Your task to perform on an android device: Open ESPN.com Image 0: 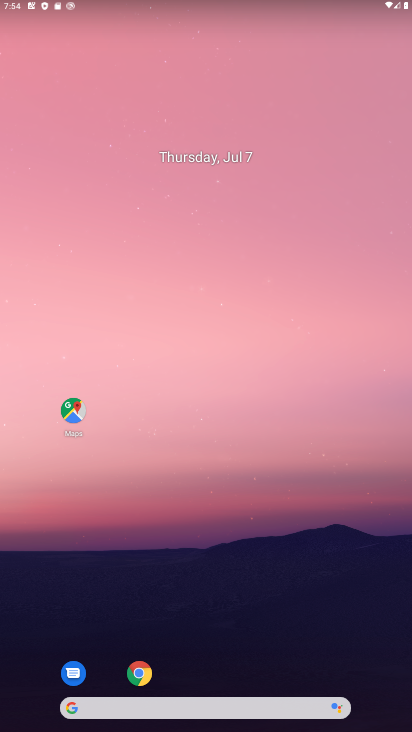
Step 0: click (139, 674)
Your task to perform on an android device: Open ESPN.com Image 1: 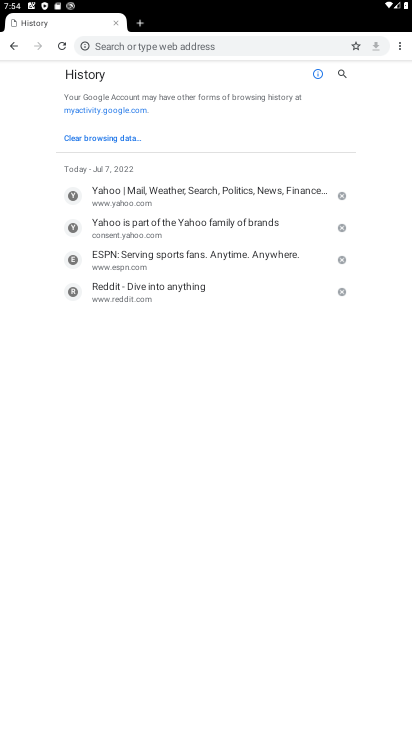
Step 1: click (182, 43)
Your task to perform on an android device: Open ESPN.com Image 2: 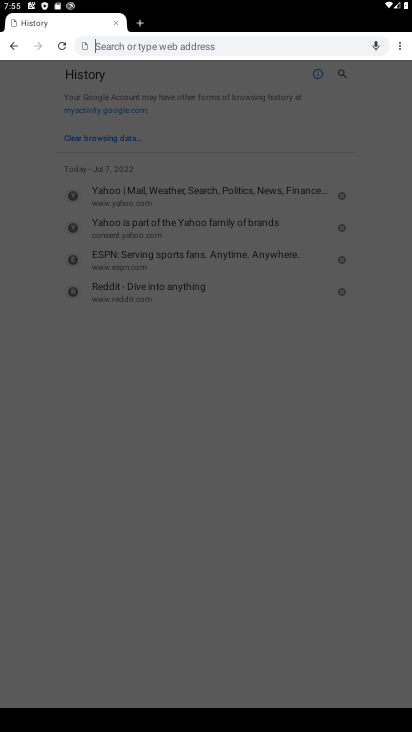
Step 2: type "www.espn.com"
Your task to perform on an android device: Open ESPN.com Image 3: 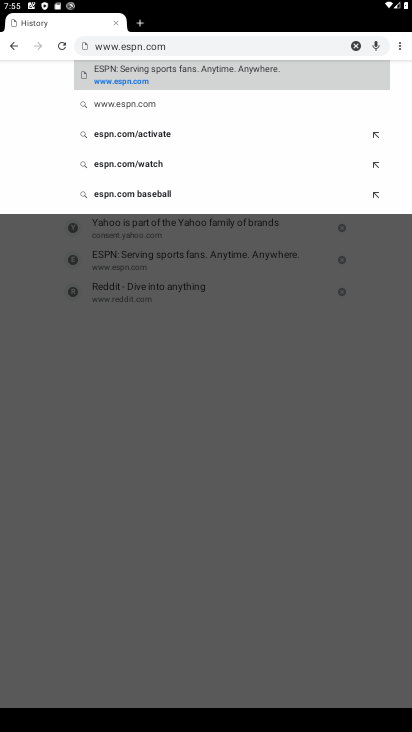
Step 3: click (112, 78)
Your task to perform on an android device: Open ESPN.com Image 4: 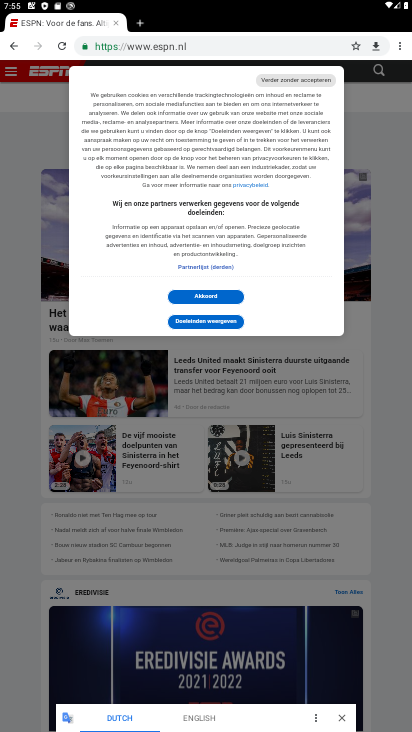
Step 4: task complete